Your task to perform on an android device: change notification settings in the gmail app Image 0: 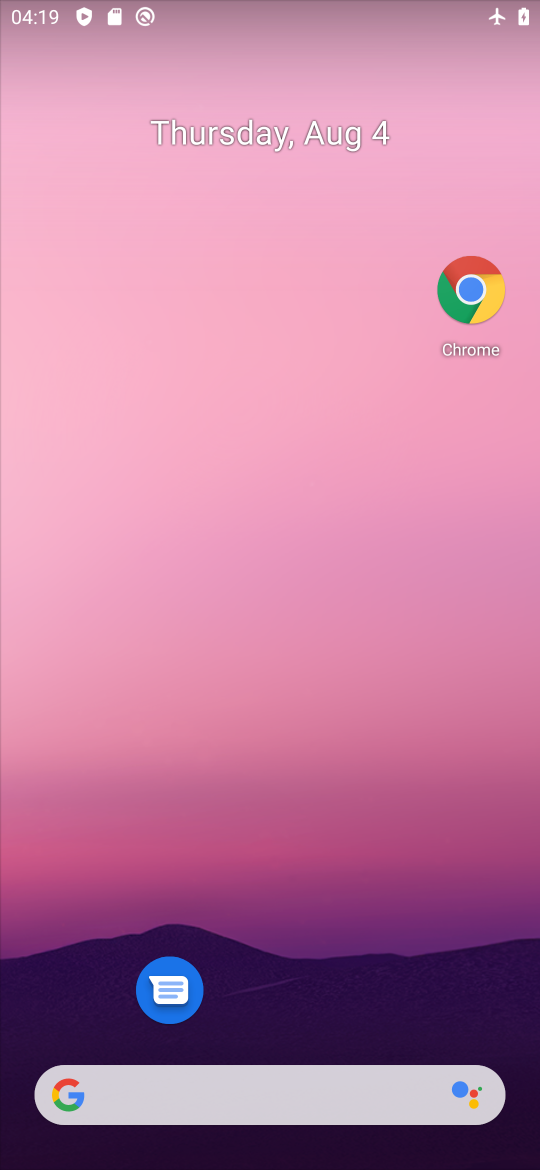
Step 0: drag from (367, 970) to (116, 183)
Your task to perform on an android device: change notification settings in the gmail app Image 1: 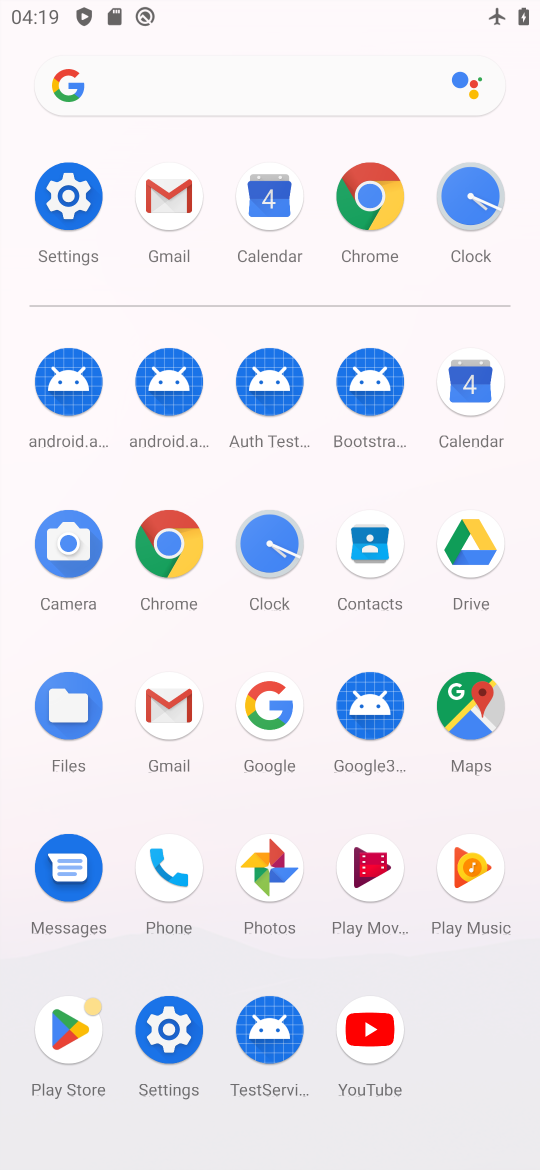
Step 1: click (173, 1083)
Your task to perform on an android device: change notification settings in the gmail app Image 2: 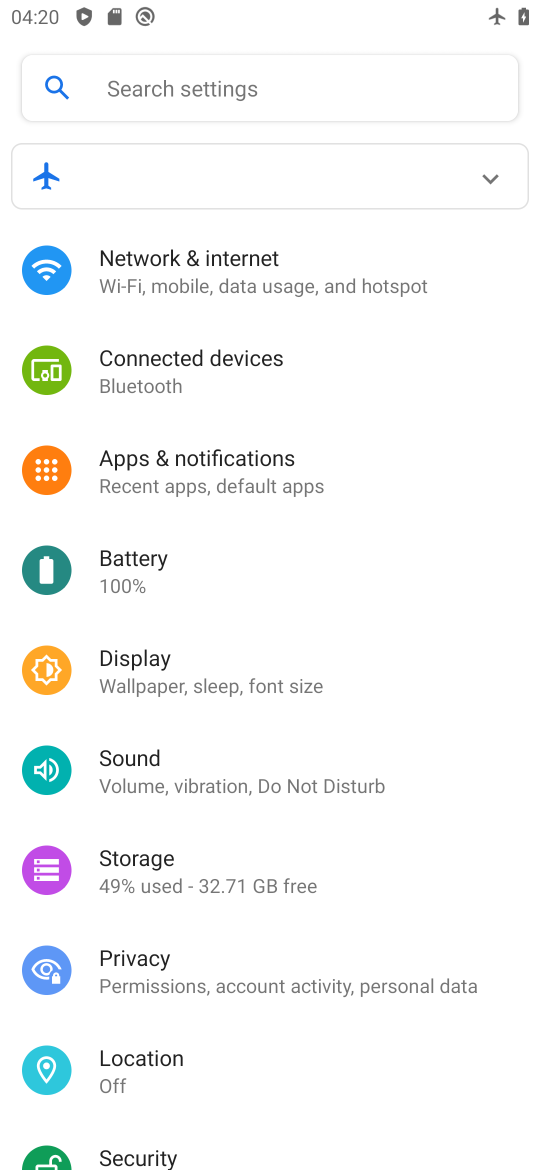
Step 2: task complete